Your task to perform on an android device: check google app version Image 0: 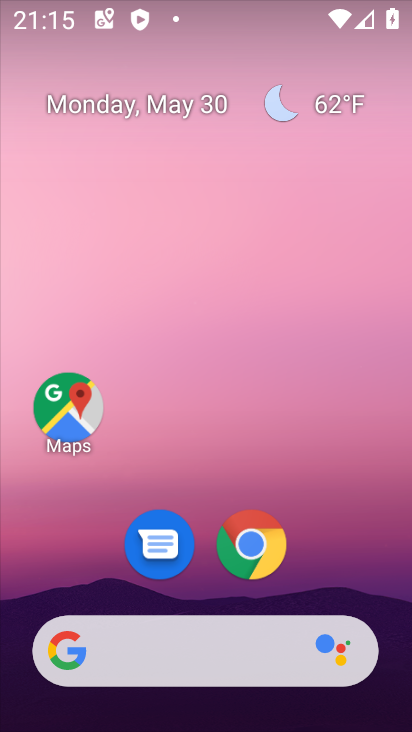
Step 0: drag from (332, 589) to (323, 219)
Your task to perform on an android device: check google app version Image 1: 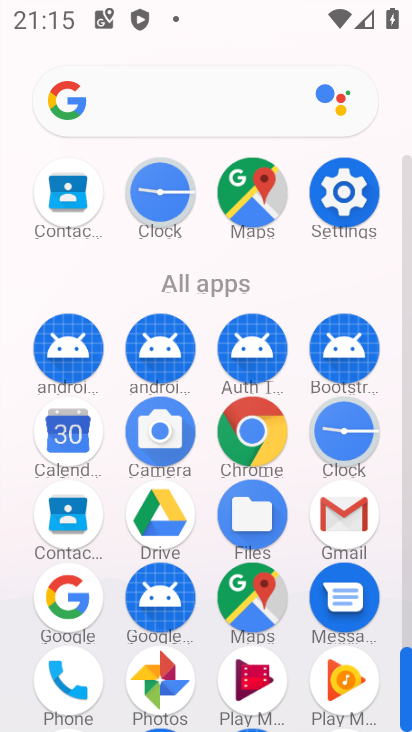
Step 1: drag from (114, 565) to (89, 267)
Your task to perform on an android device: check google app version Image 2: 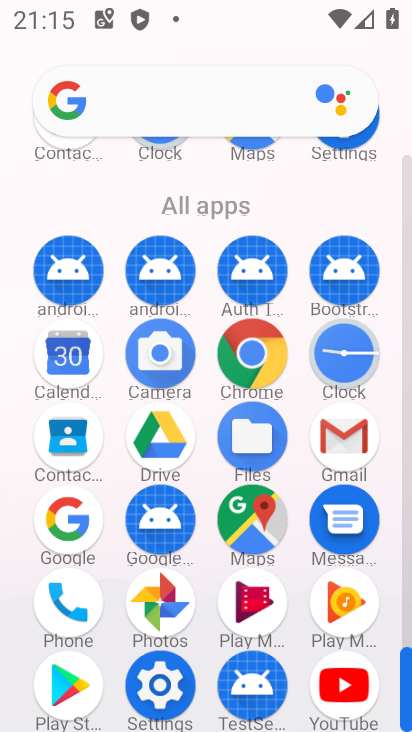
Step 2: drag from (204, 581) to (200, 422)
Your task to perform on an android device: check google app version Image 3: 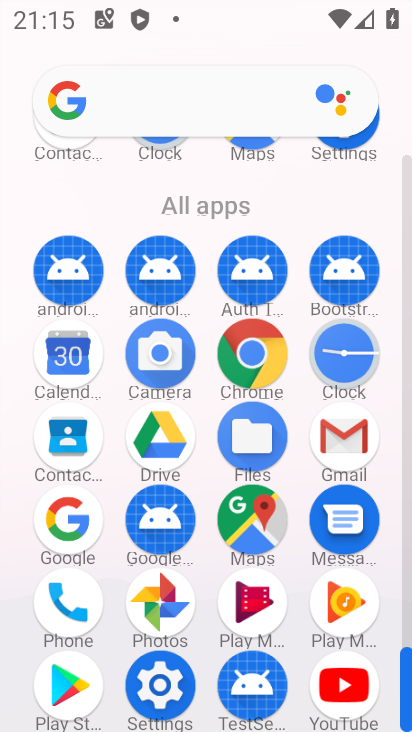
Step 3: click (65, 522)
Your task to perform on an android device: check google app version Image 4: 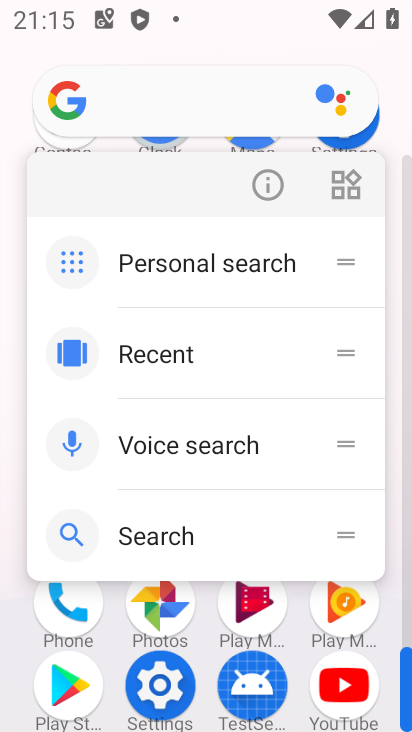
Step 4: click (277, 192)
Your task to perform on an android device: check google app version Image 5: 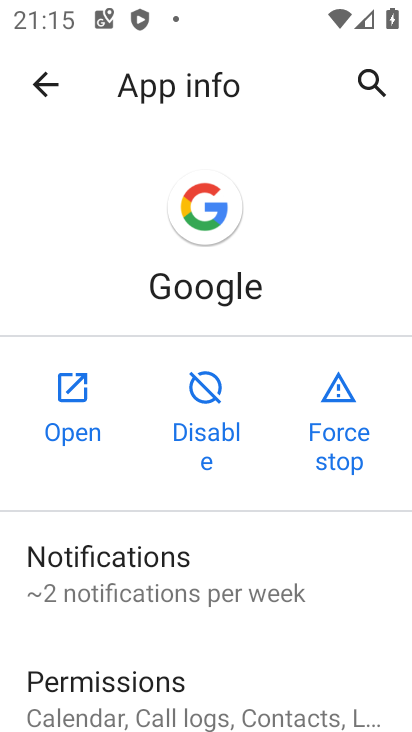
Step 5: drag from (192, 644) to (226, 471)
Your task to perform on an android device: check google app version Image 6: 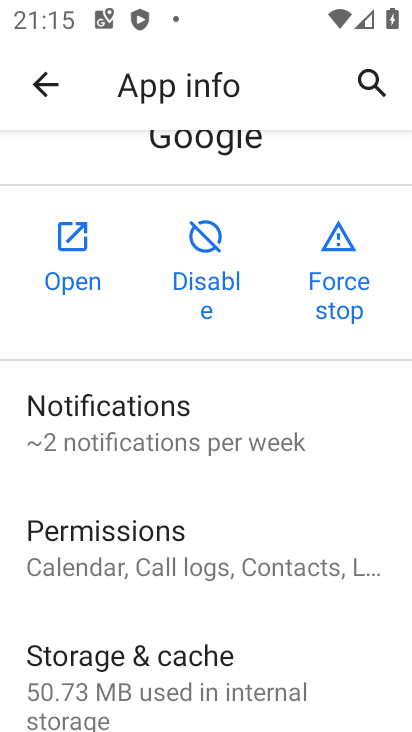
Step 6: drag from (216, 621) to (306, 435)
Your task to perform on an android device: check google app version Image 7: 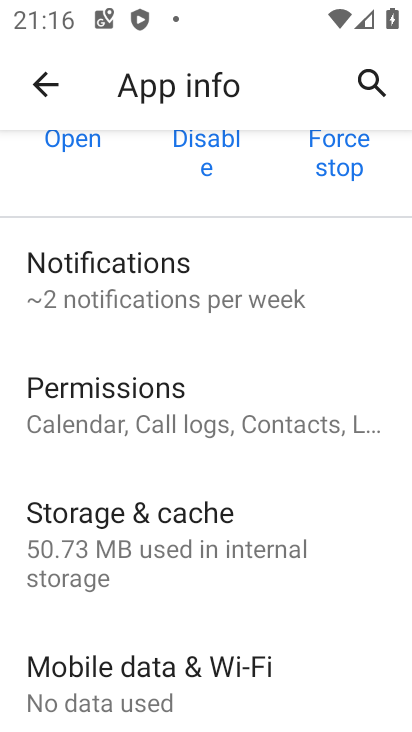
Step 7: drag from (113, 612) to (156, 503)
Your task to perform on an android device: check google app version Image 8: 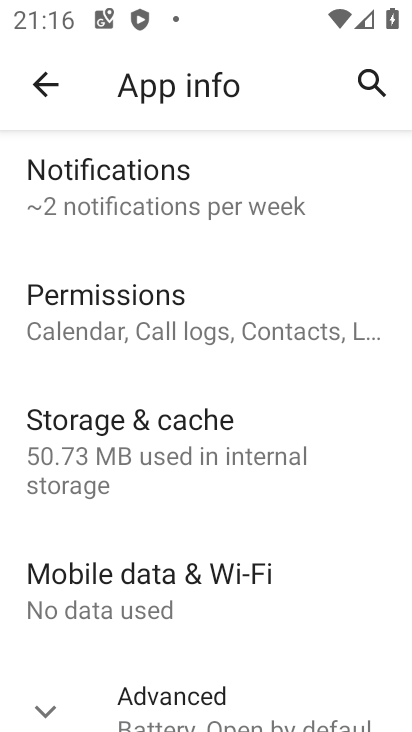
Step 8: drag from (102, 635) to (188, 528)
Your task to perform on an android device: check google app version Image 9: 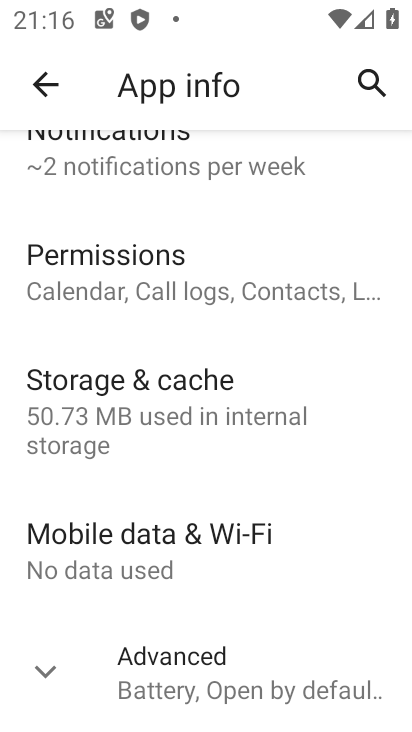
Step 9: click (230, 698)
Your task to perform on an android device: check google app version Image 10: 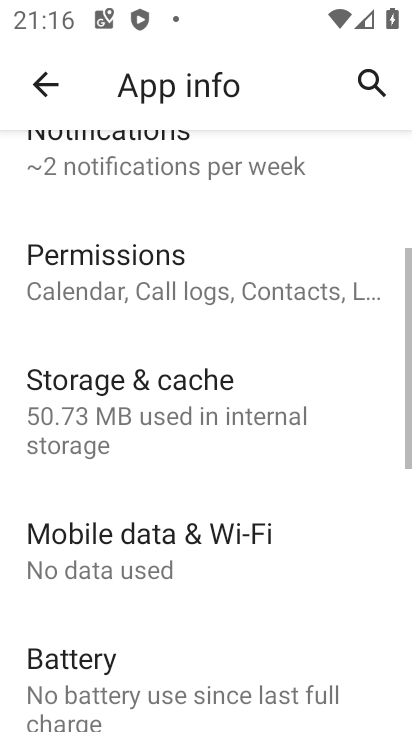
Step 10: task complete